Your task to perform on an android device: toggle show notifications on the lock screen Image 0: 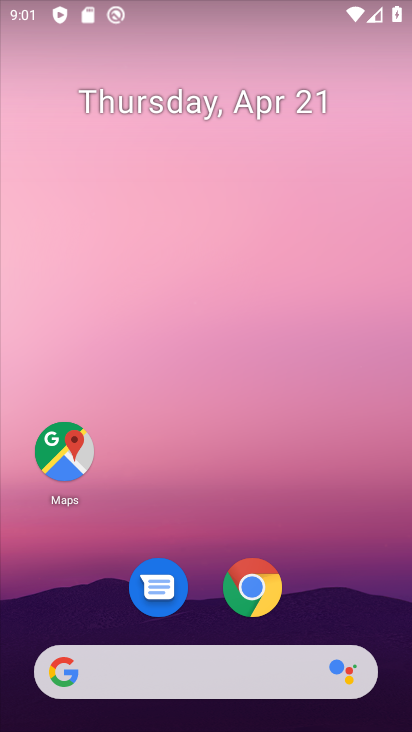
Step 0: drag from (227, 546) to (351, 42)
Your task to perform on an android device: toggle show notifications on the lock screen Image 1: 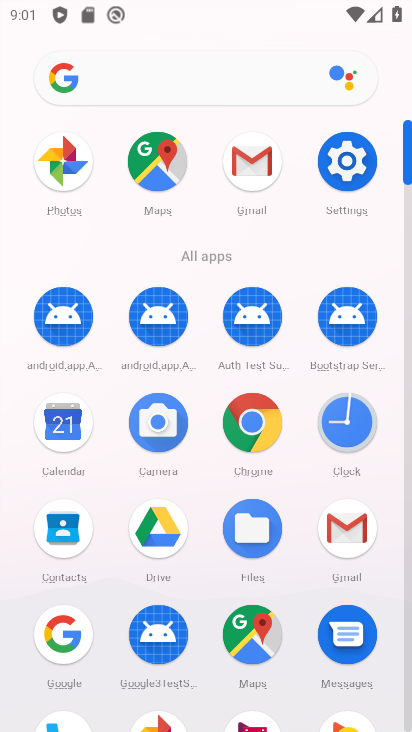
Step 1: click (348, 159)
Your task to perform on an android device: toggle show notifications on the lock screen Image 2: 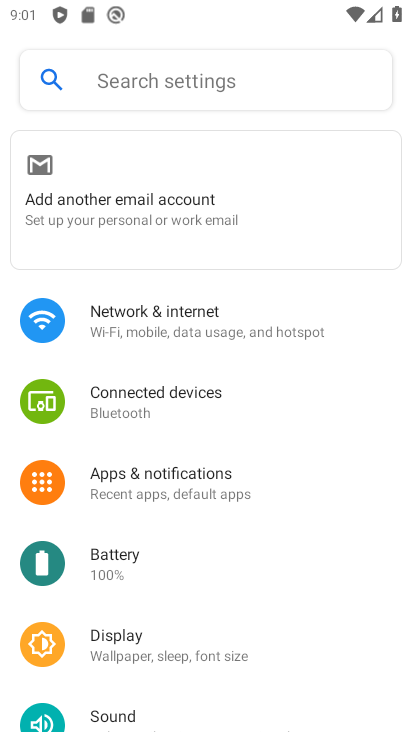
Step 2: click (184, 487)
Your task to perform on an android device: toggle show notifications on the lock screen Image 3: 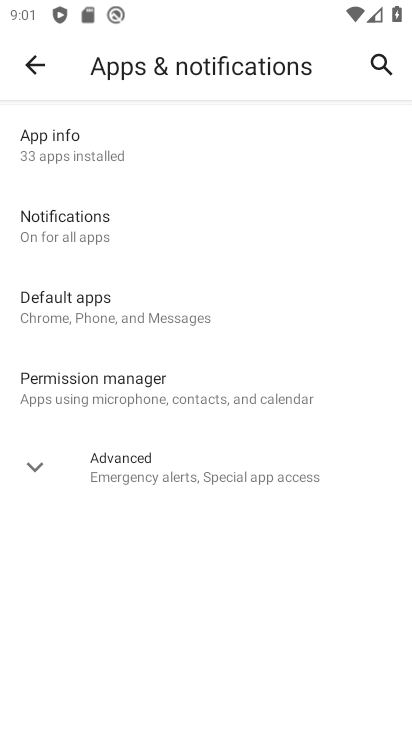
Step 3: click (69, 217)
Your task to perform on an android device: toggle show notifications on the lock screen Image 4: 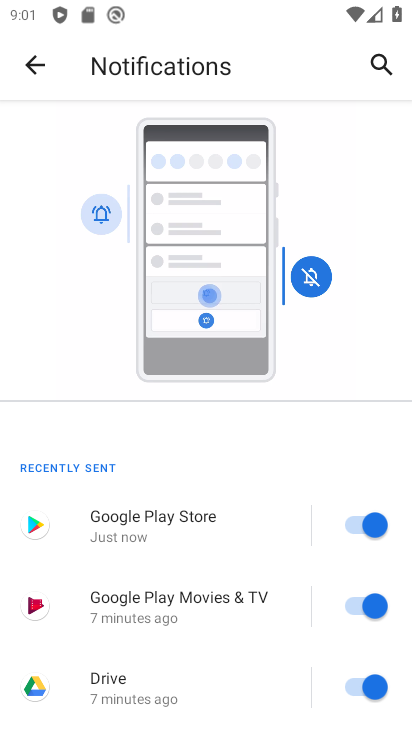
Step 4: drag from (210, 626) to (256, 101)
Your task to perform on an android device: toggle show notifications on the lock screen Image 5: 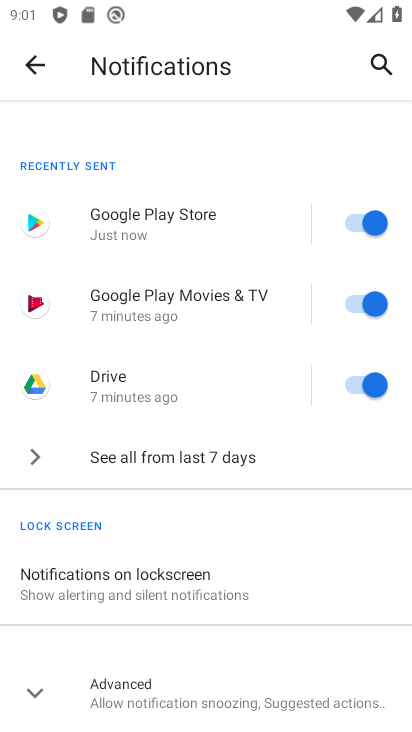
Step 5: click (156, 596)
Your task to perform on an android device: toggle show notifications on the lock screen Image 6: 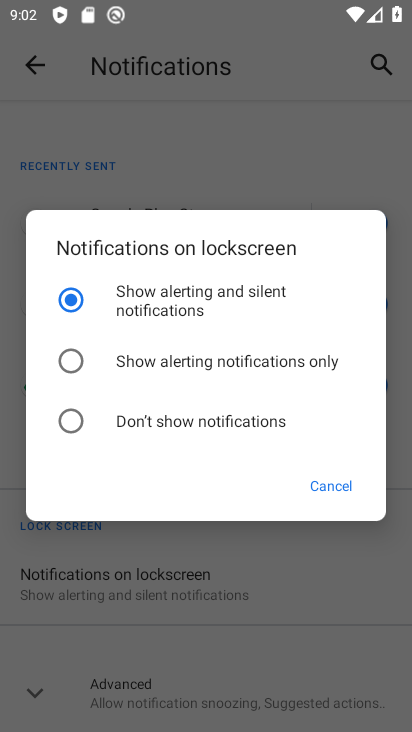
Step 6: task complete